Your task to perform on an android device: Search for sony triple a on costco.com, select the first entry, and add it to the cart. Image 0: 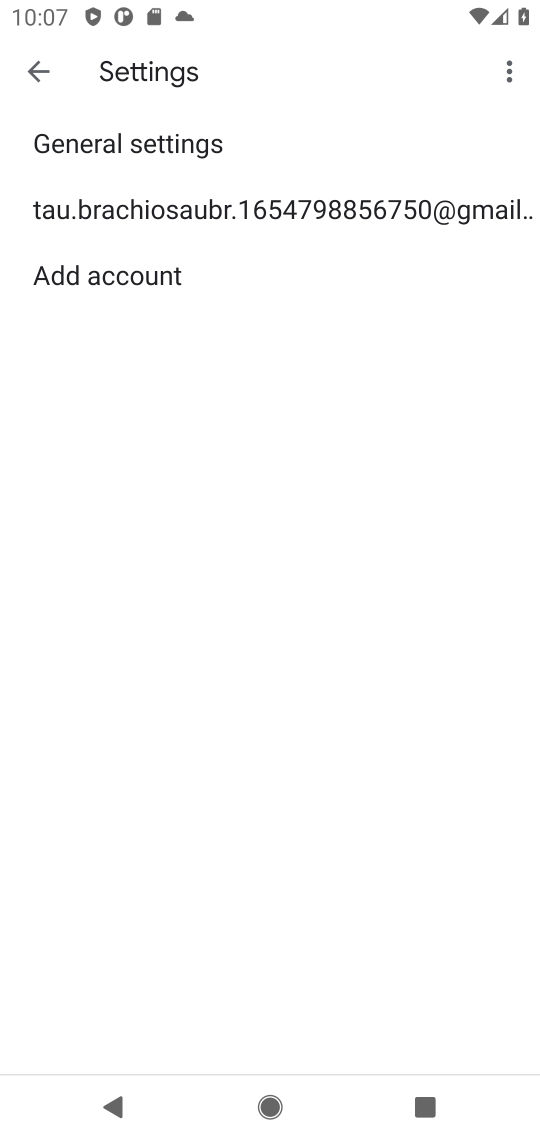
Step 0: press home button
Your task to perform on an android device: Search for sony triple a on costco.com, select the first entry, and add it to the cart. Image 1: 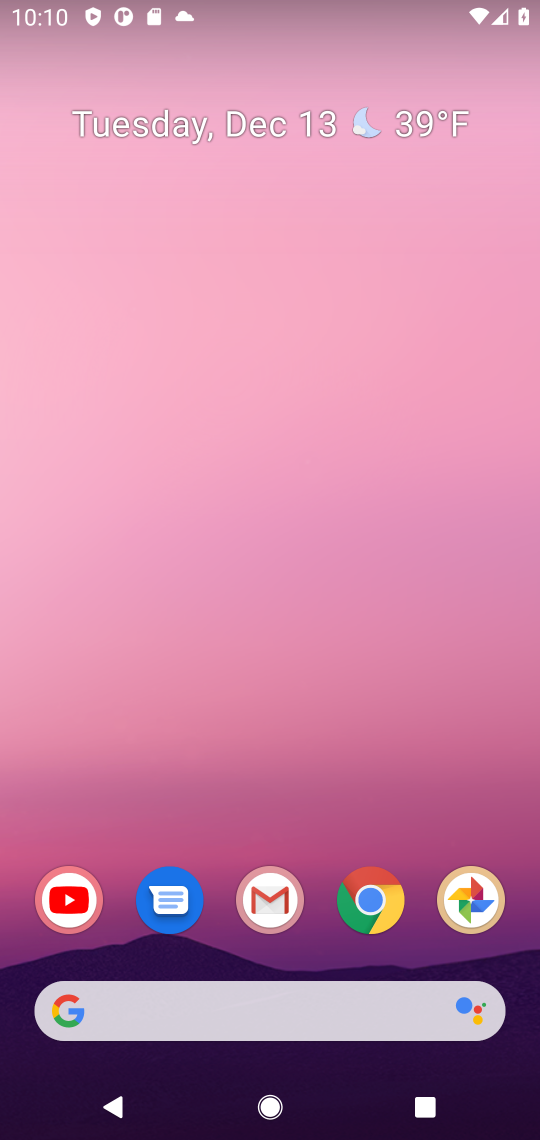
Step 1: task complete